Your task to perform on an android device: Open the web browser Image 0: 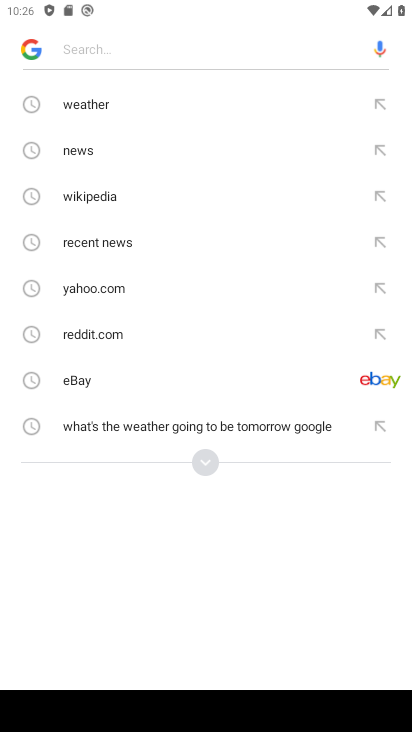
Step 0: press back button
Your task to perform on an android device: Open the web browser Image 1: 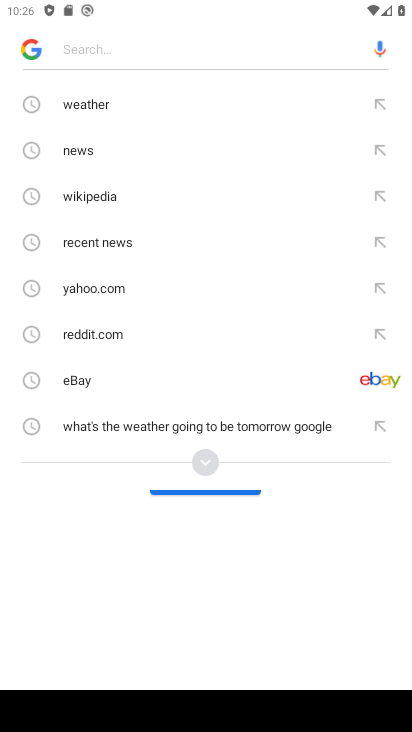
Step 1: press back button
Your task to perform on an android device: Open the web browser Image 2: 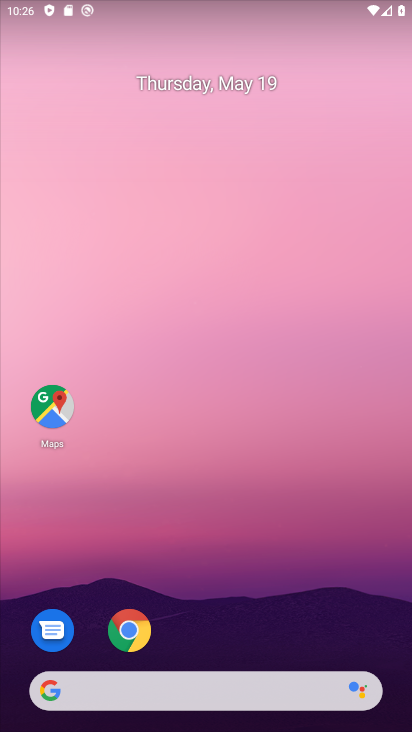
Step 2: drag from (280, 642) to (168, 107)
Your task to perform on an android device: Open the web browser Image 3: 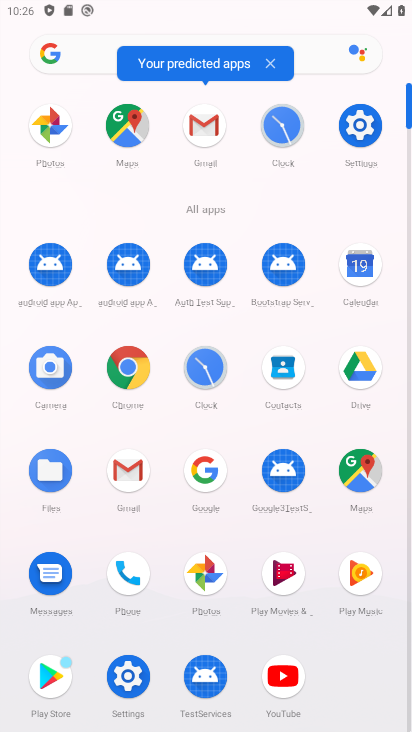
Step 3: click (119, 370)
Your task to perform on an android device: Open the web browser Image 4: 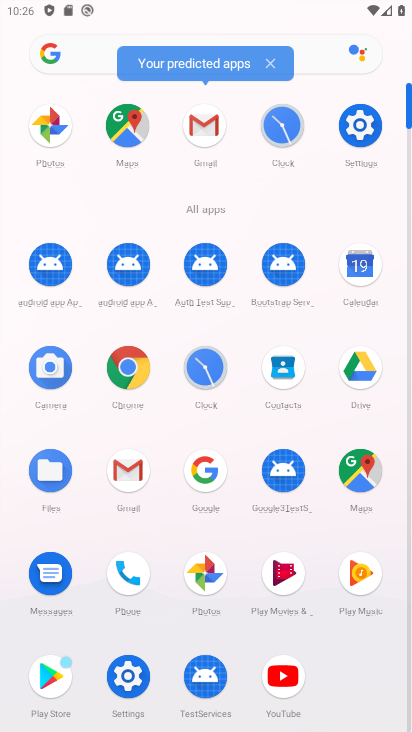
Step 4: click (120, 370)
Your task to perform on an android device: Open the web browser Image 5: 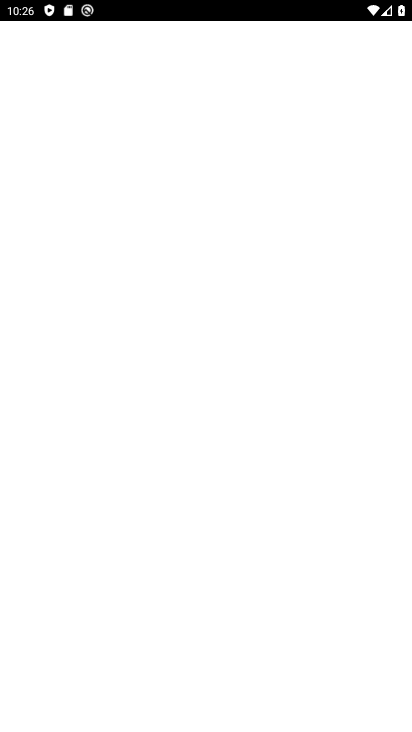
Step 5: click (125, 363)
Your task to perform on an android device: Open the web browser Image 6: 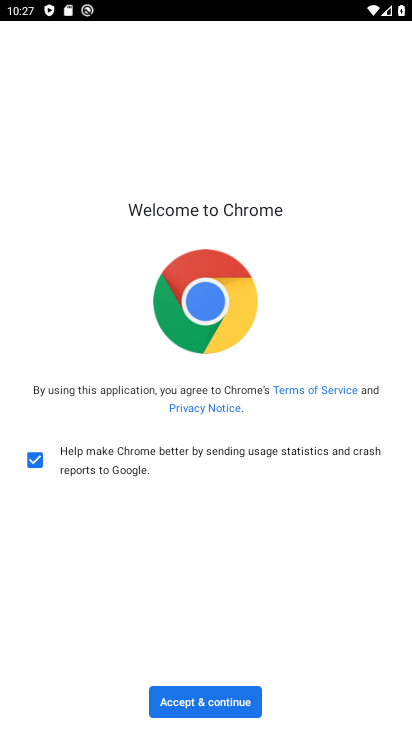
Step 6: click (201, 696)
Your task to perform on an android device: Open the web browser Image 7: 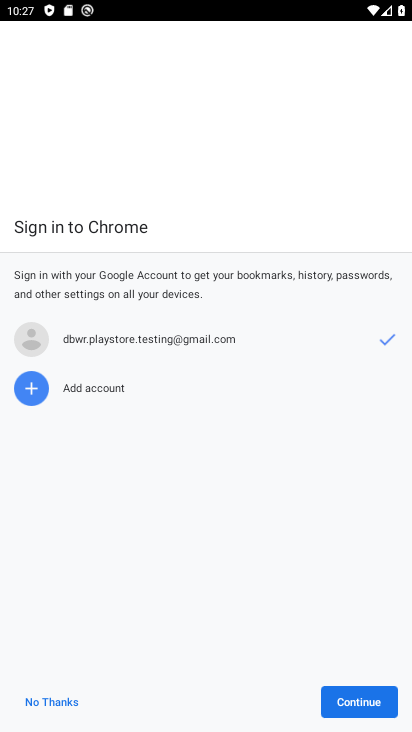
Step 7: click (352, 705)
Your task to perform on an android device: Open the web browser Image 8: 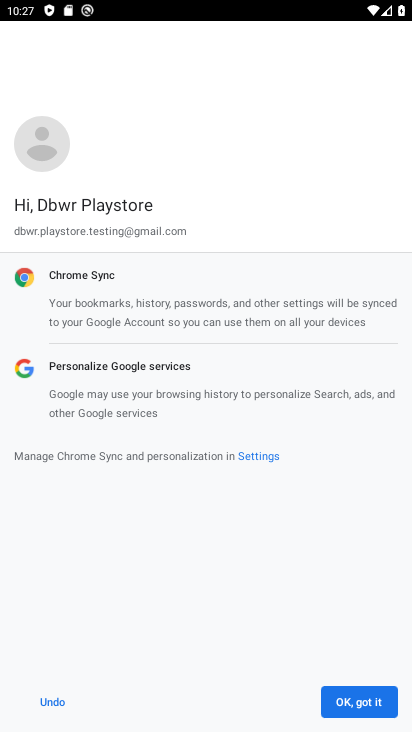
Step 8: click (364, 693)
Your task to perform on an android device: Open the web browser Image 9: 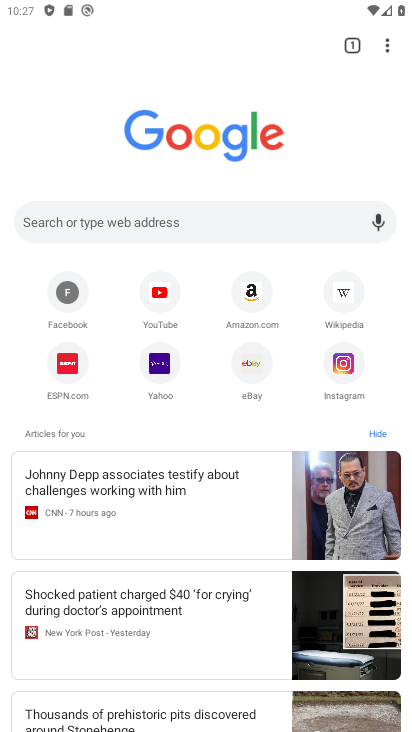
Step 9: click (144, 217)
Your task to perform on an android device: Open the web browser Image 10: 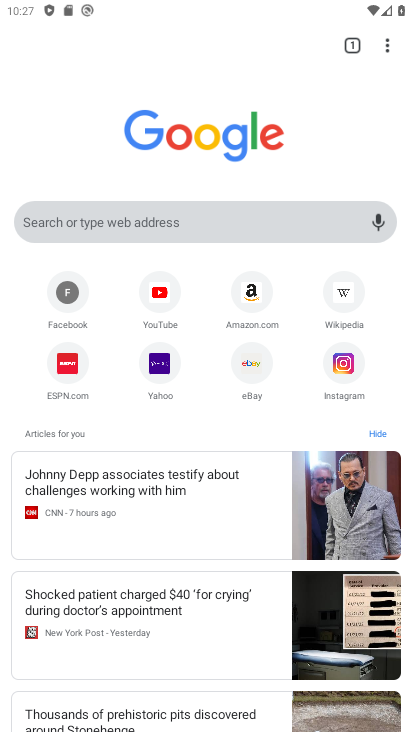
Step 10: click (144, 217)
Your task to perform on an android device: Open the web browser Image 11: 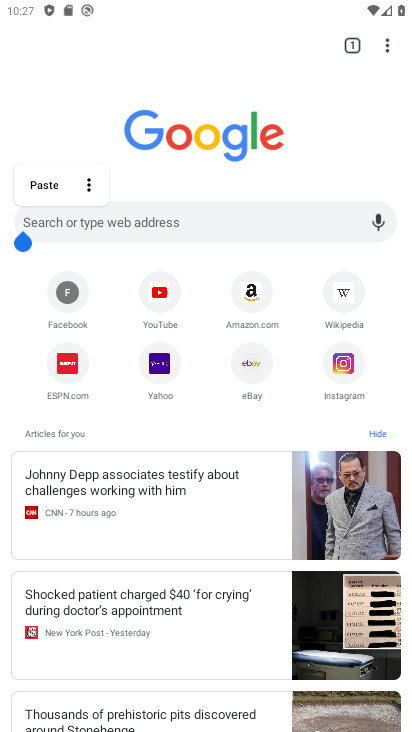
Step 11: click (144, 217)
Your task to perform on an android device: Open the web browser Image 12: 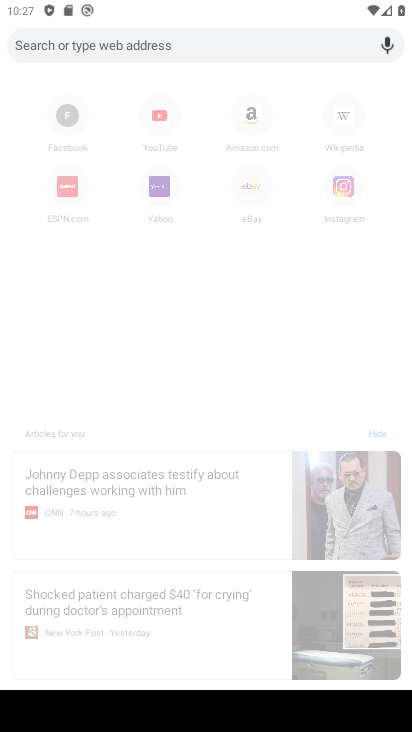
Step 12: click (78, 43)
Your task to perform on an android device: Open the web browser Image 13: 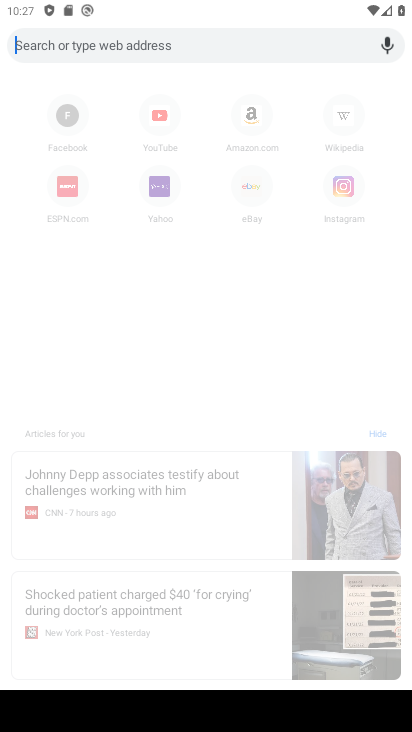
Step 13: click (95, 41)
Your task to perform on an android device: Open the web browser Image 14: 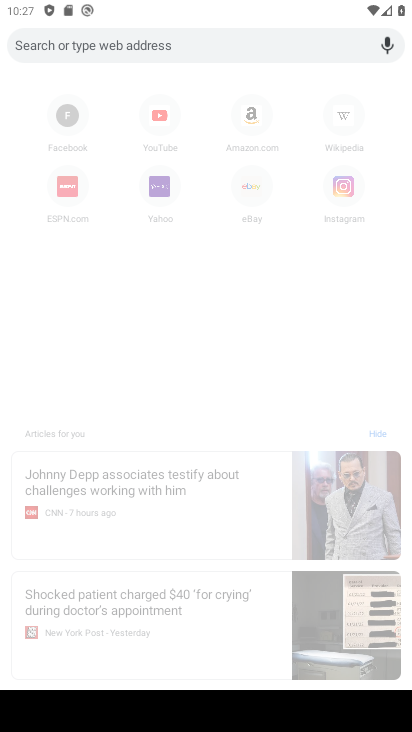
Step 14: click (96, 40)
Your task to perform on an android device: Open the web browser Image 15: 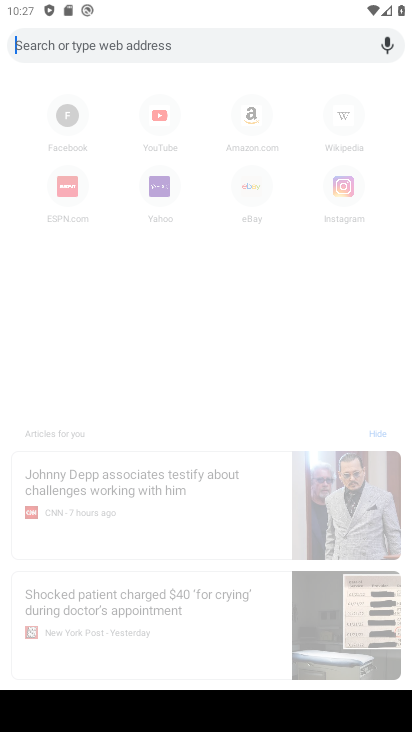
Step 15: click (96, 40)
Your task to perform on an android device: Open the web browser Image 16: 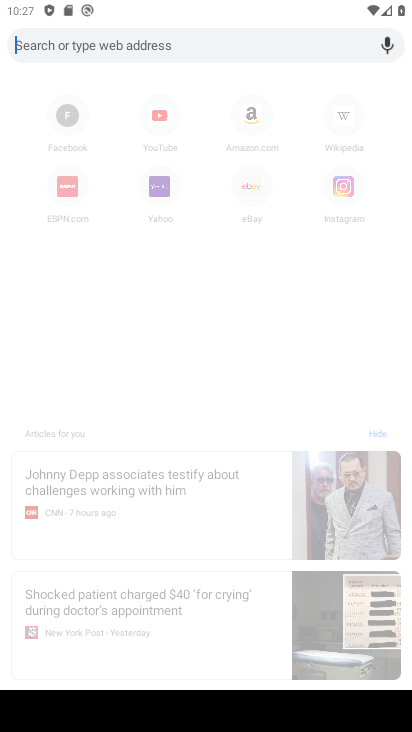
Step 16: click (96, 40)
Your task to perform on an android device: Open the web browser Image 17: 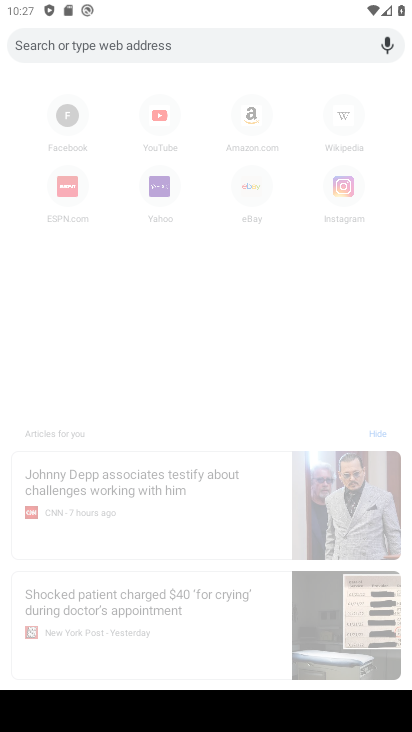
Step 17: click (97, 40)
Your task to perform on an android device: Open the web browser Image 18: 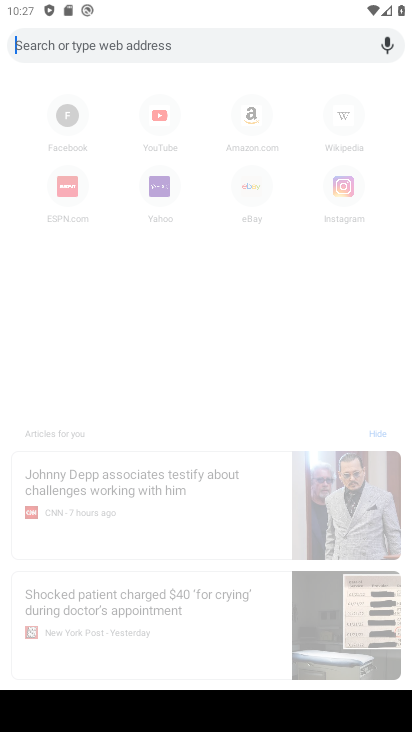
Step 18: press back button
Your task to perform on an android device: Open the web browser Image 19: 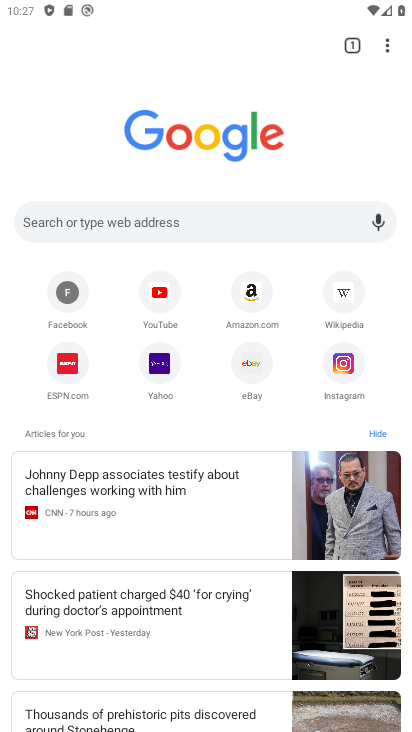
Step 19: drag from (390, 45) to (204, 86)
Your task to perform on an android device: Open the web browser Image 20: 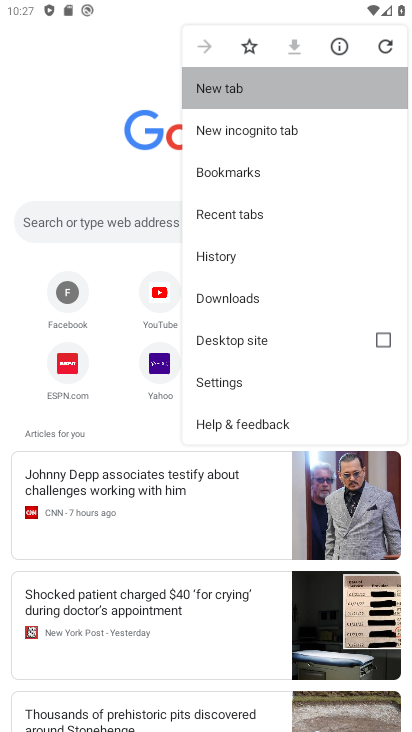
Step 20: click (206, 84)
Your task to perform on an android device: Open the web browser Image 21: 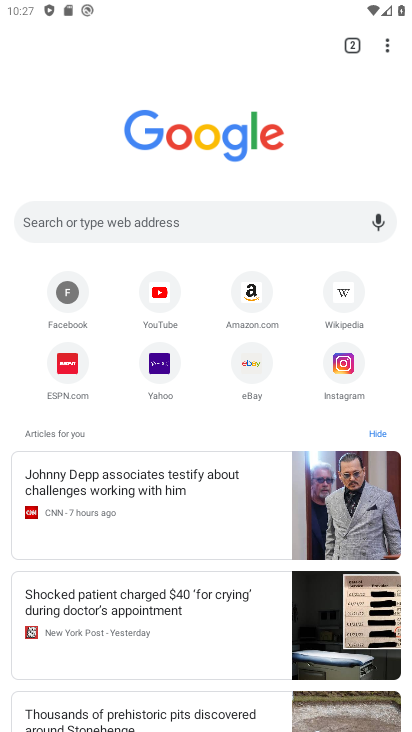
Step 21: task complete